Your task to perform on an android device: Open Google Image 0: 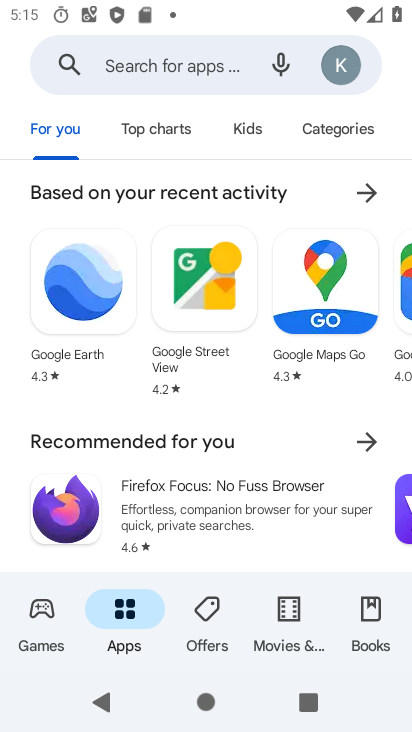
Step 0: press home button
Your task to perform on an android device: Open Google Image 1: 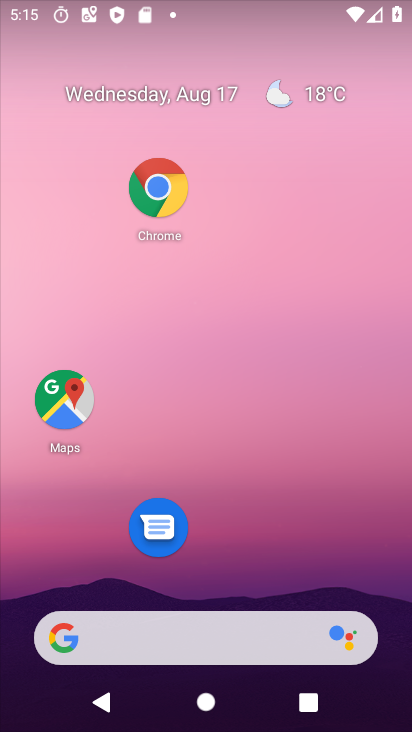
Step 1: click (232, 622)
Your task to perform on an android device: Open Google Image 2: 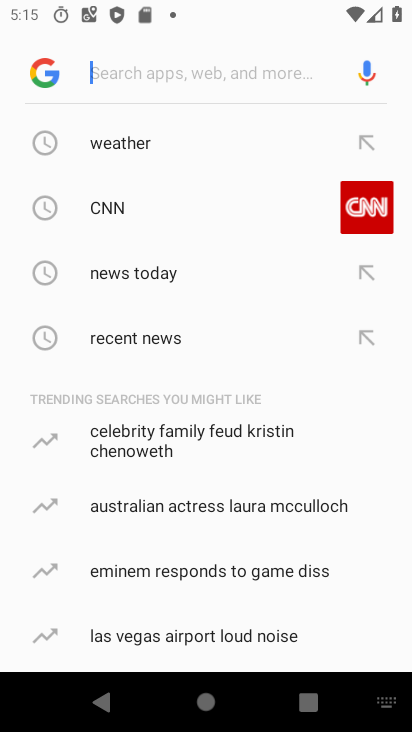
Step 2: task complete